Your task to perform on an android device: set default search engine in the chrome app Image 0: 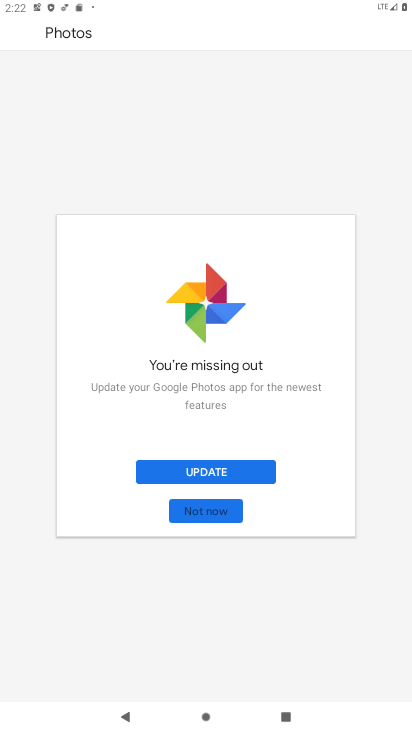
Step 0: press back button
Your task to perform on an android device: set default search engine in the chrome app Image 1: 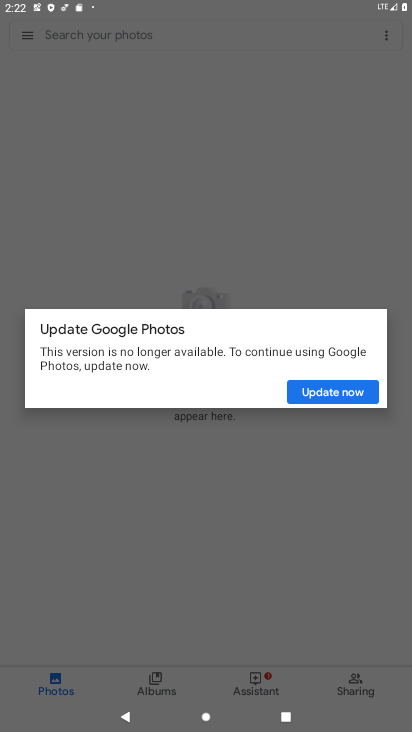
Step 1: press back button
Your task to perform on an android device: set default search engine in the chrome app Image 2: 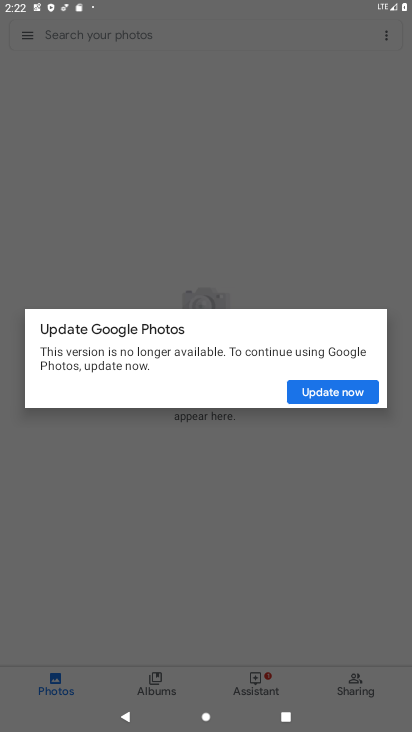
Step 2: press home button
Your task to perform on an android device: set default search engine in the chrome app Image 3: 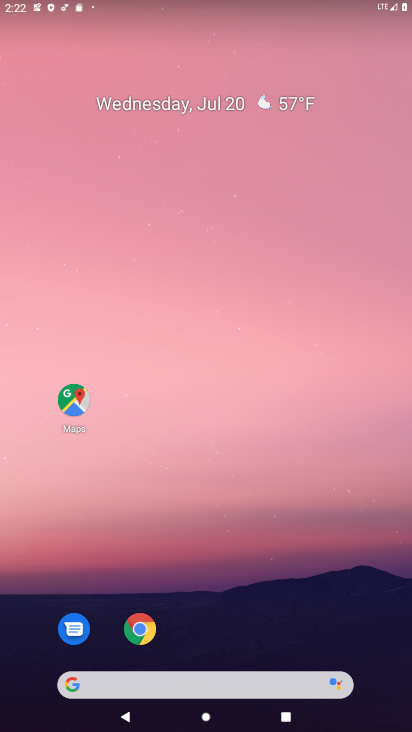
Step 3: click (148, 626)
Your task to perform on an android device: set default search engine in the chrome app Image 4: 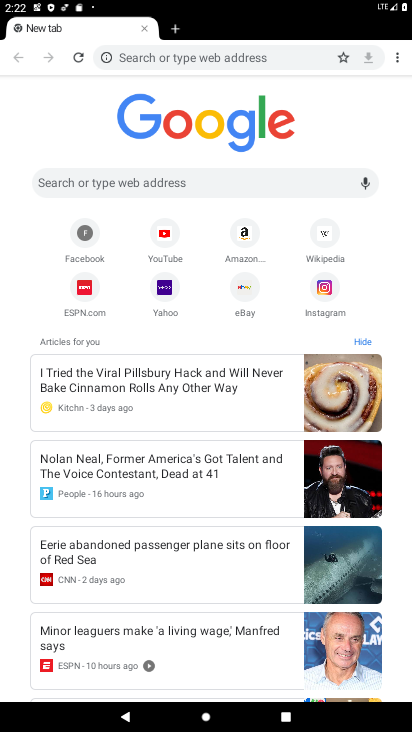
Step 4: drag from (395, 59) to (295, 299)
Your task to perform on an android device: set default search engine in the chrome app Image 5: 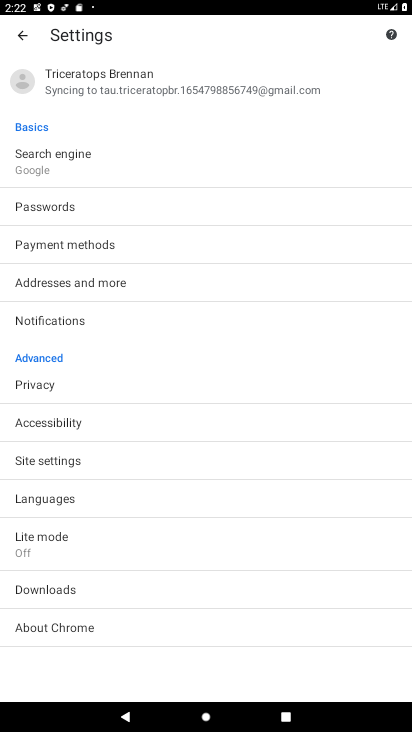
Step 5: click (79, 154)
Your task to perform on an android device: set default search engine in the chrome app Image 6: 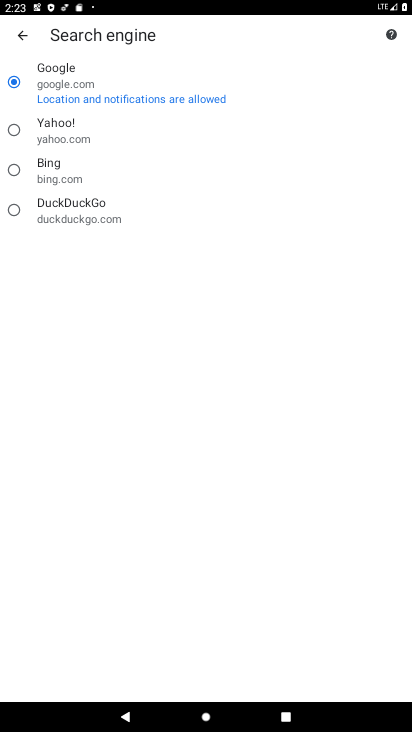
Step 6: click (63, 220)
Your task to perform on an android device: set default search engine in the chrome app Image 7: 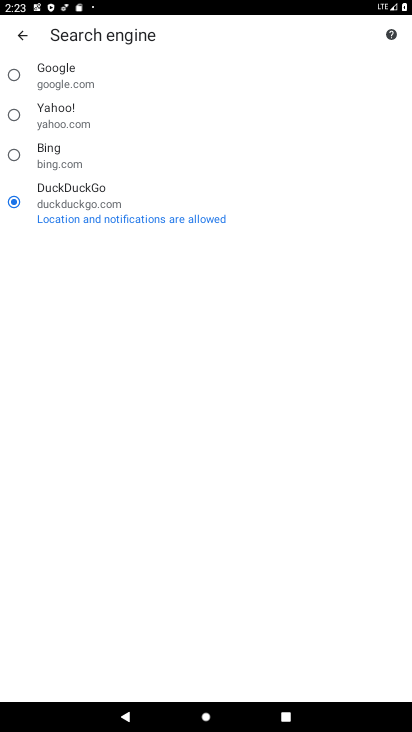
Step 7: task complete